Your task to perform on an android device: Look up the best rated headphones on Walmart. Image 0: 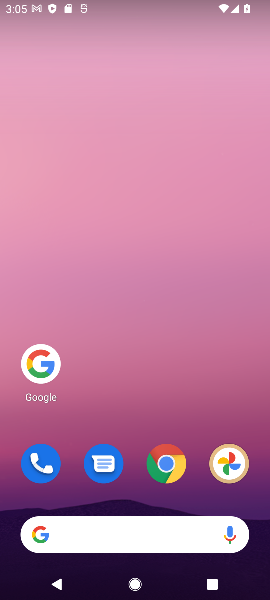
Step 0: click (34, 358)
Your task to perform on an android device: Look up the best rated headphones on Walmart. Image 1: 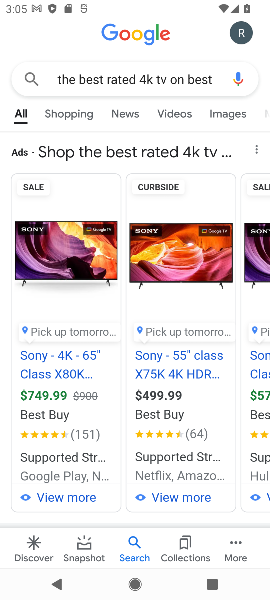
Step 1: click (205, 80)
Your task to perform on an android device: Look up the best rated headphones on Walmart. Image 2: 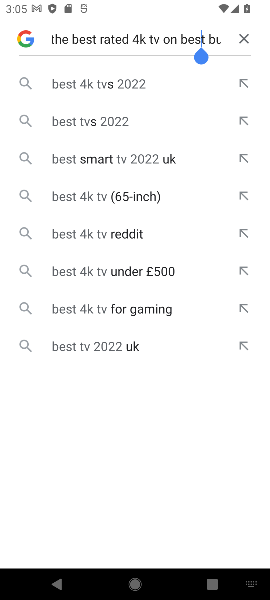
Step 2: click (236, 33)
Your task to perform on an android device: Look up the best rated headphones on Walmart. Image 3: 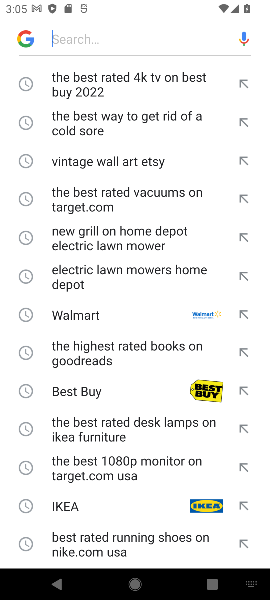
Step 3: click (113, 31)
Your task to perform on an android device: Look up the best rated headphones on Walmart. Image 4: 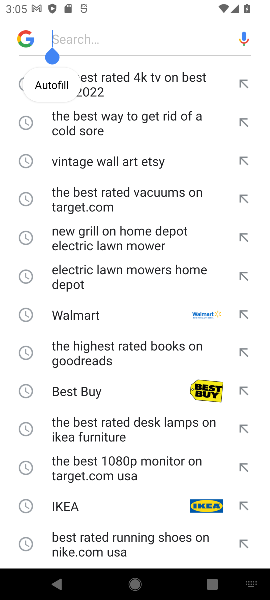
Step 4: type " the best rated headphones on Walmart "
Your task to perform on an android device: Look up the best rated headphones on Walmart. Image 5: 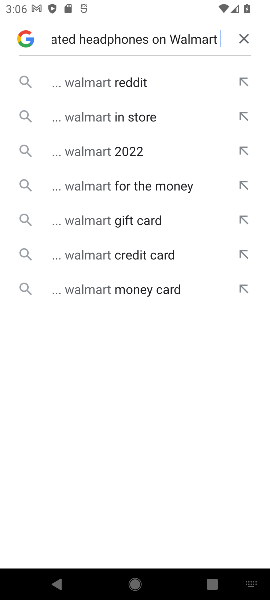
Step 5: click (116, 113)
Your task to perform on an android device: Look up the best rated headphones on Walmart. Image 6: 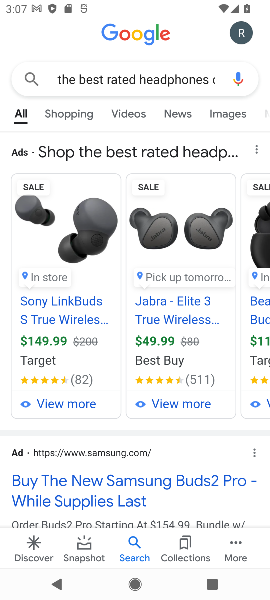
Step 6: task complete